Your task to perform on an android device: Search for "logitech g502" on target, select the first entry, add it to the cart, then select checkout. Image 0: 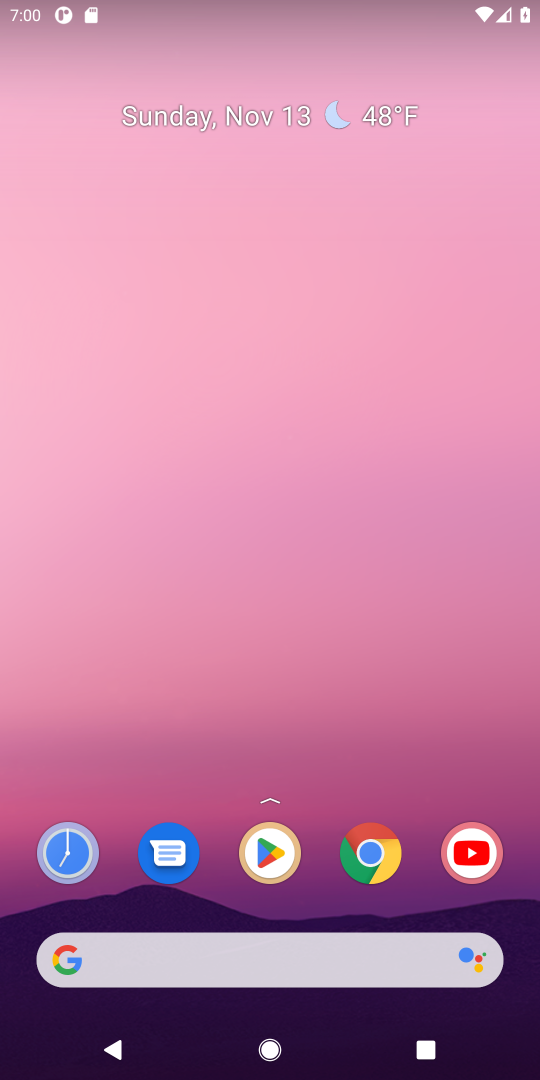
Step 0: press home button
Your task to perform on an android device: Search for "logitech g502" on target, select the first entry, add it to the cart, then select checkout. Image 1: 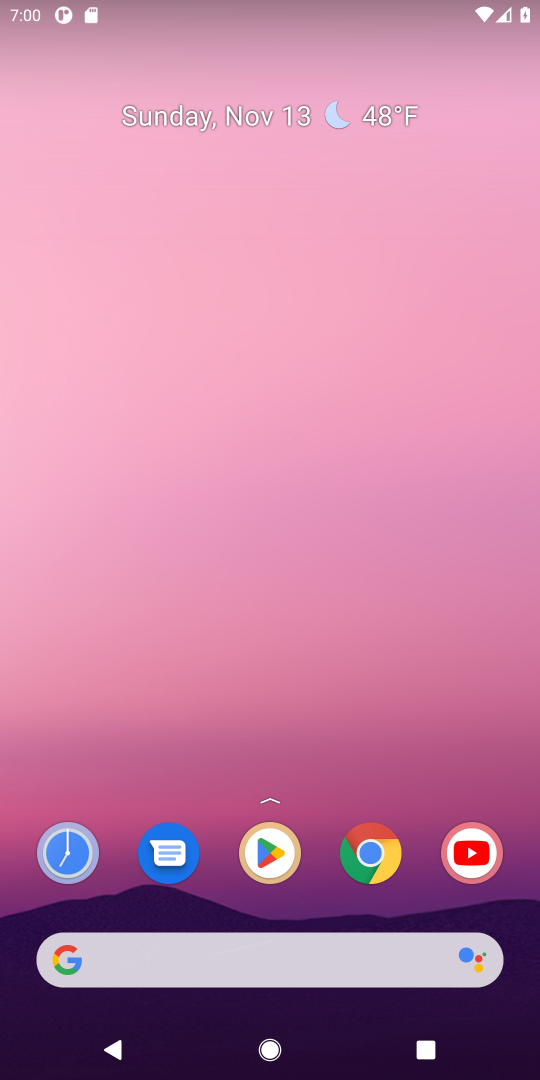
Step 1: click (102, 957)
Your task to perform on an android device: Search for "logitech g502" on target, select the first entry, add it to the cart, then select checkout. Image 2: 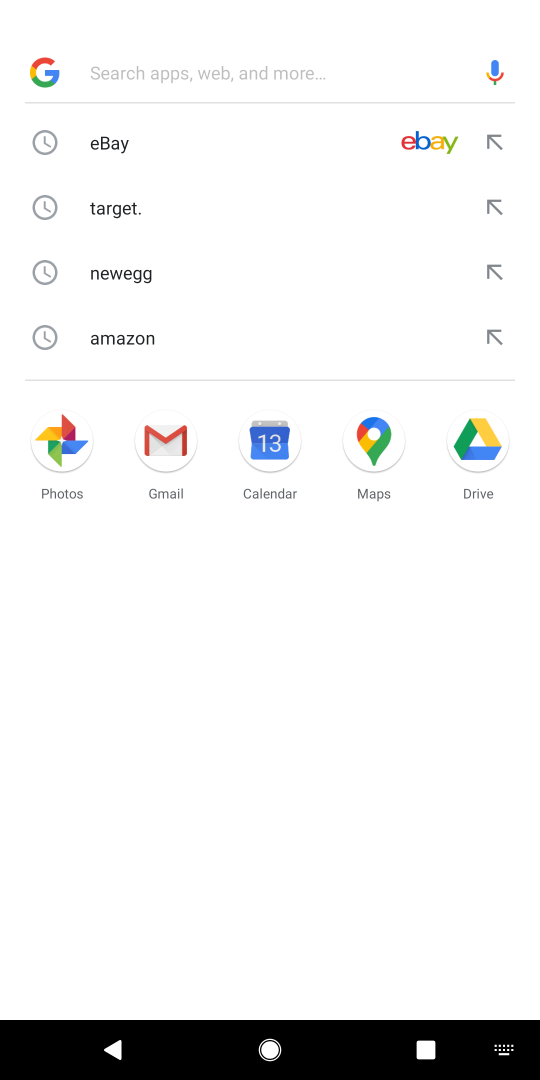
Step 2: type "target"
Your task to perform on an android device: Search for "logitech g502" on target, select the first entry, add it to the cart, then select checkout. Image 3: 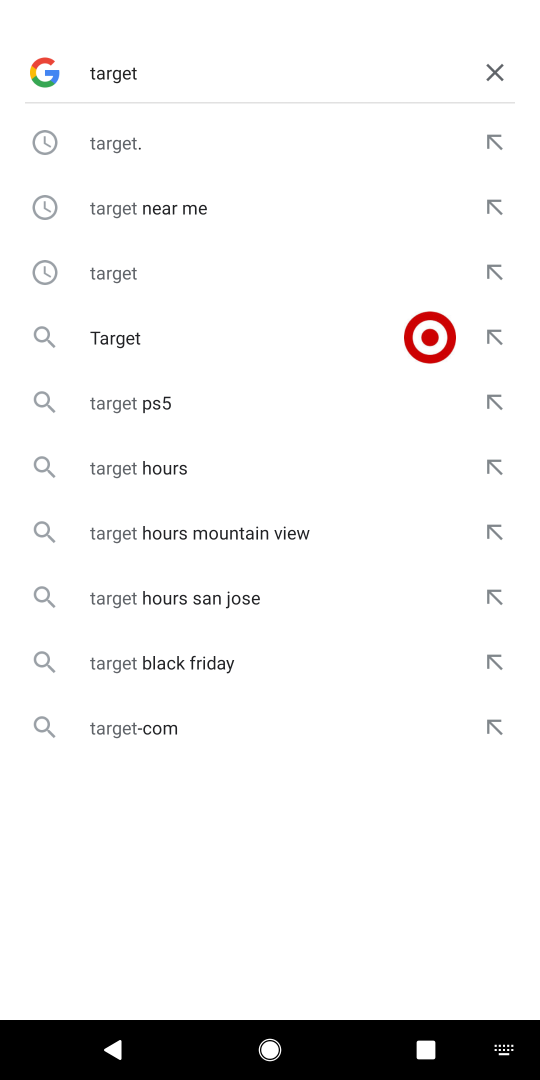
Step 3: press enter
Your task to perform on an android device: Search for "logitech g502" on target, select the first entry, add it to the cart, then select checkout. Image 4: 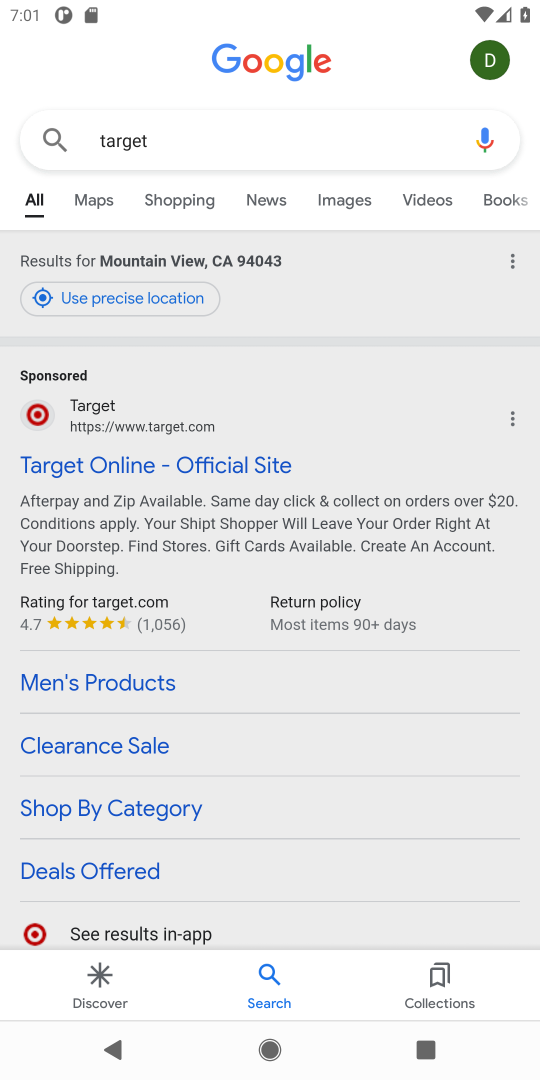
Step 4: click (80, 459)
Your task to perform on an android device: Search for "logitech g502" on target, select the first entry, add it to the cart, then select checkout. Image 5: 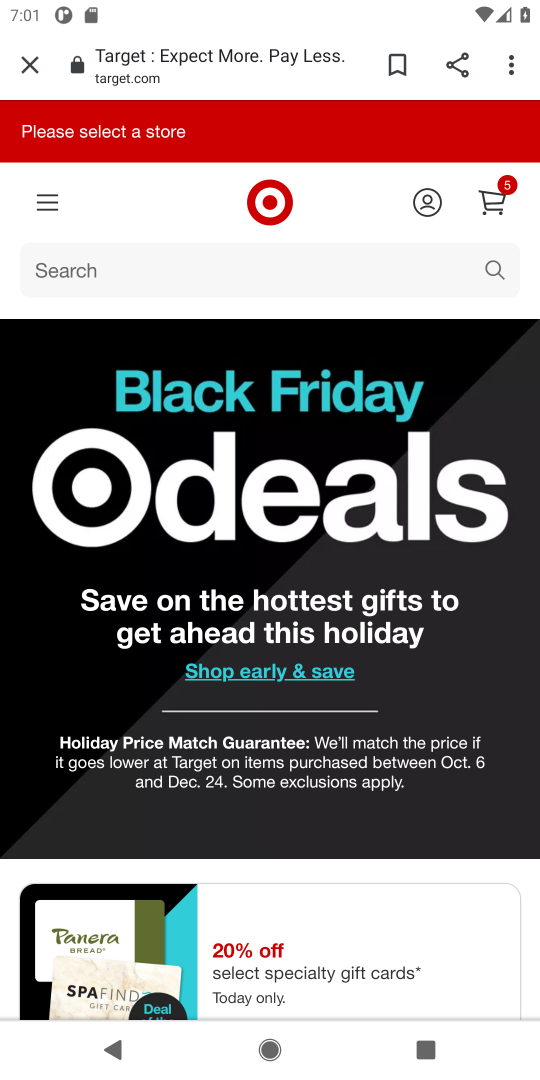
Step 5: click (78, 266)
Your task to perform on an android device: Search for "logitech g502" on target, select the first entry, add it to the cart, then select checkout. Image 6: 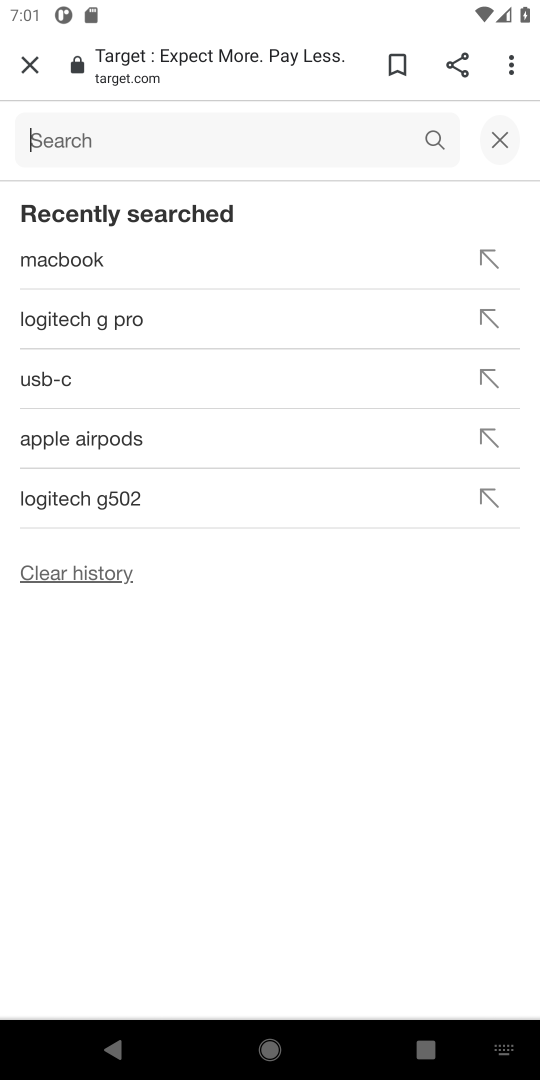
Step 6: type "logitech g502"
Your task to perform on an android device: Search for "logitech g502" on target, select the first entry, add it to the cart, then select checkout. Image 7: 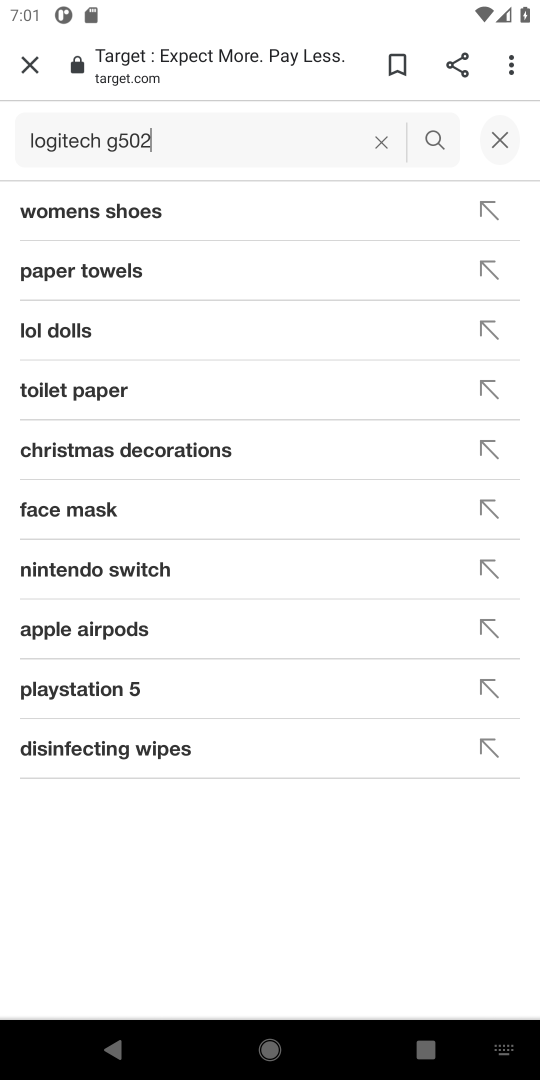
Step 7: press enter
Your task to perform on an android device: Search for "logitech g502" on target, select the first entry, add it to the cart, then select checkout. Image 8: 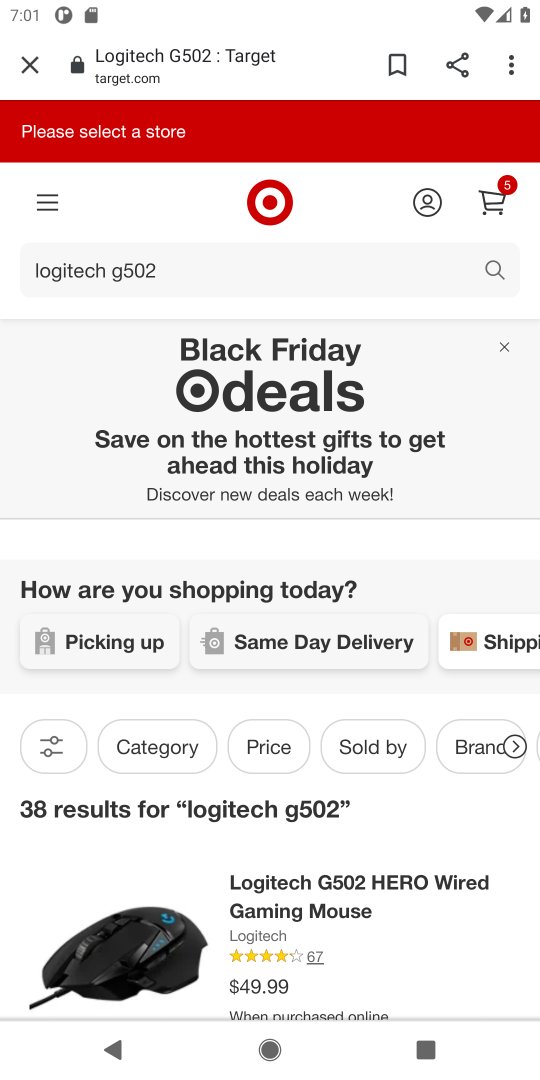
Step 8: click (282, 912)
Your task to perform on an android device: Search for "logitech g502" on target, select the first entry, add it to the cart, then select checkout. Image 9: 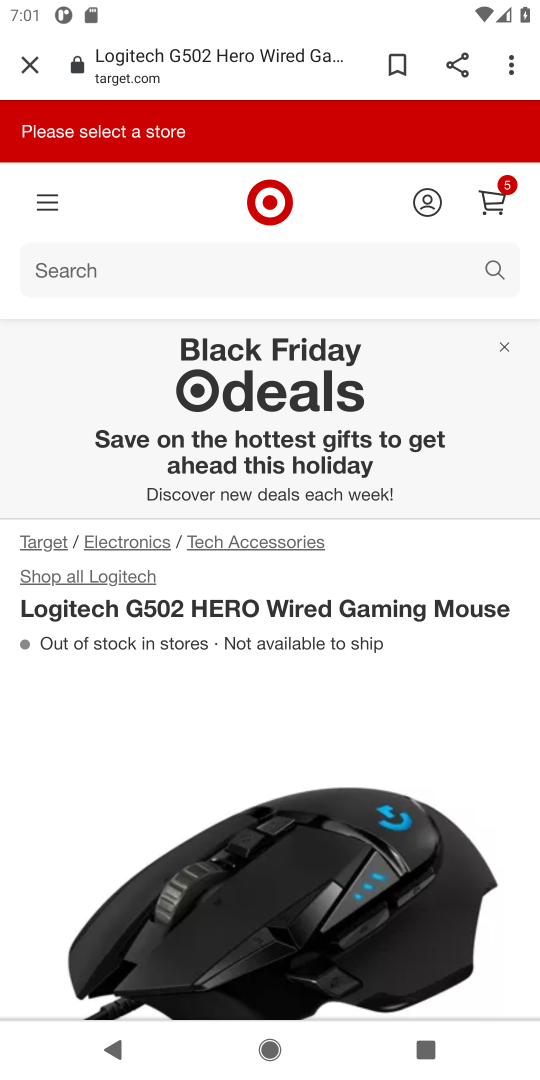
Step 9: drag from (299, 749) to (326, 463)
Your task to perform on an android device: Search for "logitech g502" on target, select the first entry, add it to the cart, then select checkout. Image 10: 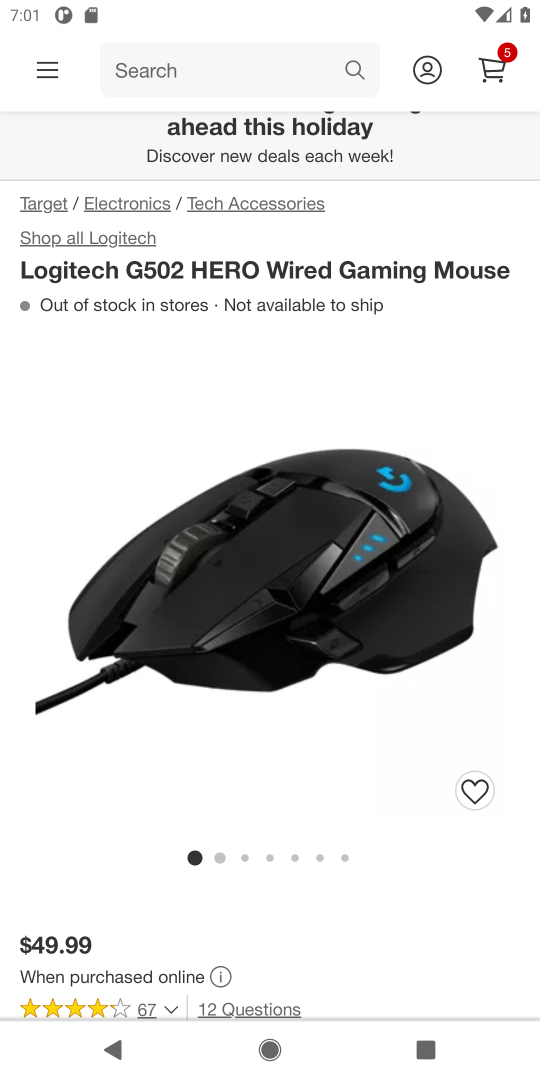
Step 10: drag from (290, 926) to (363, 350)
Your task to perform on an android device: Search for "logitech g502" on target, select the first entry, add it to the cart, then select checkout. Image 11: 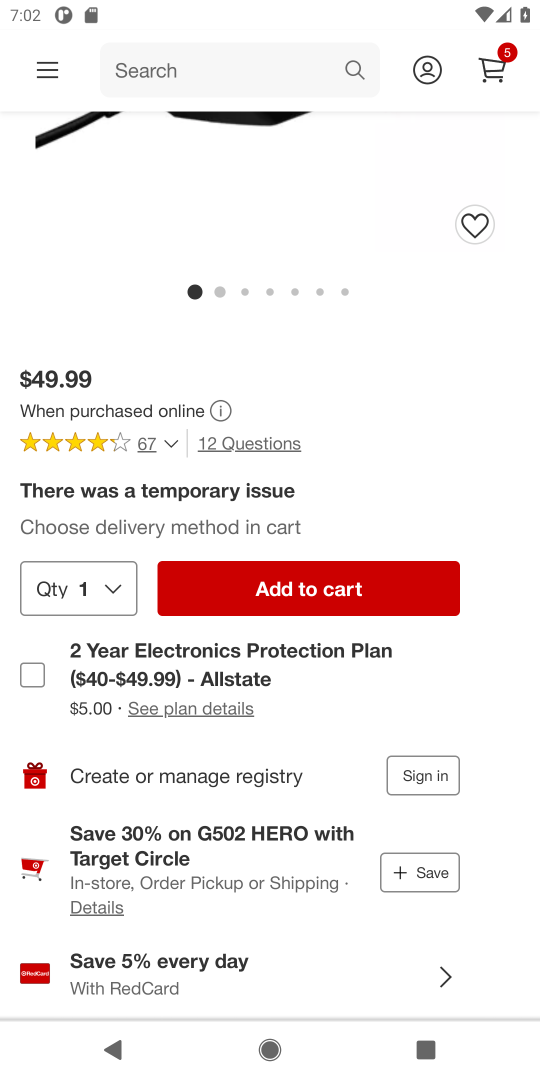
Step 11: click (317, 598)
Your task to perform on an android device: Search for "logitech g502" on target, select the first entry, add it to the cart, then select checkout. Image 12: 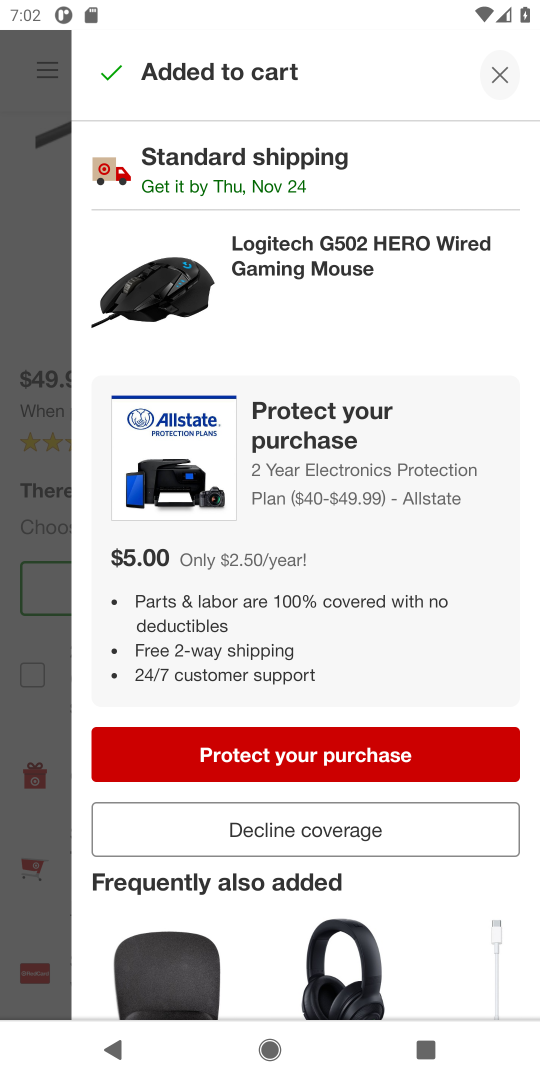
Step 12: click (334, 826)
Your task to perform on an android device: Search for "logitech g502" on target, select the first entry, add it to the cart, then select checkout. Image 13: 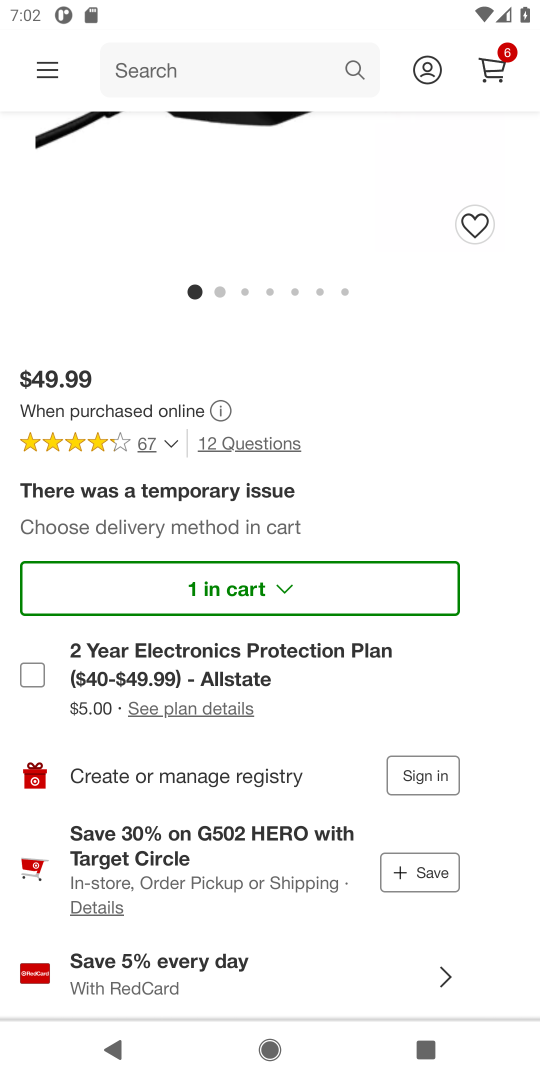
Step 13: click (495, 60)
Your task to perform on an android device: Search for "logitech g502" on target, select the first entry, add it to the cart, then select checkout. Image 14: 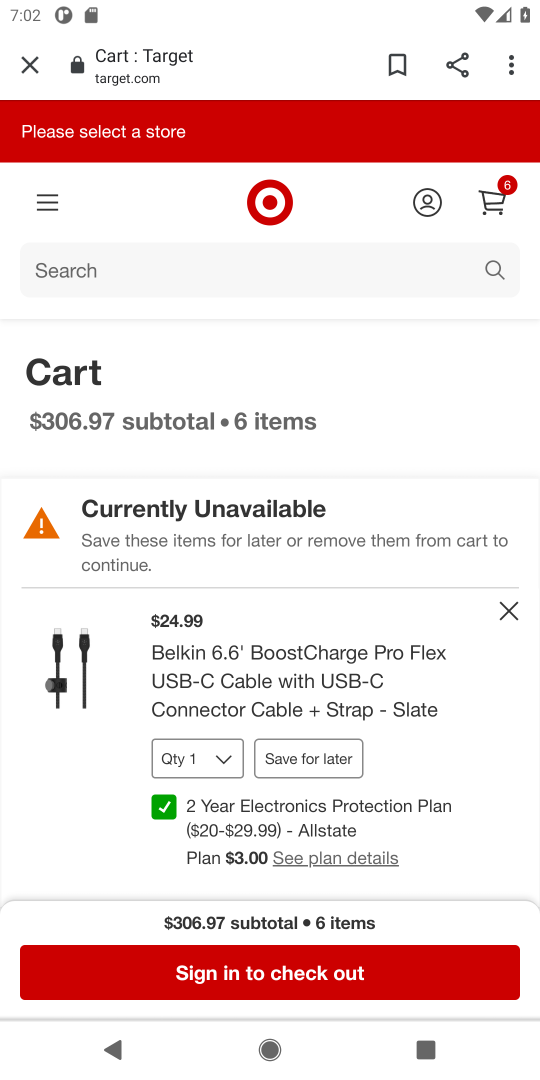
Step 14: click (248, 975)
Your task to perform on an android device: Search for "logitech g502" on target, select the first entry, add it to the cart, then select checkout. Image 15: 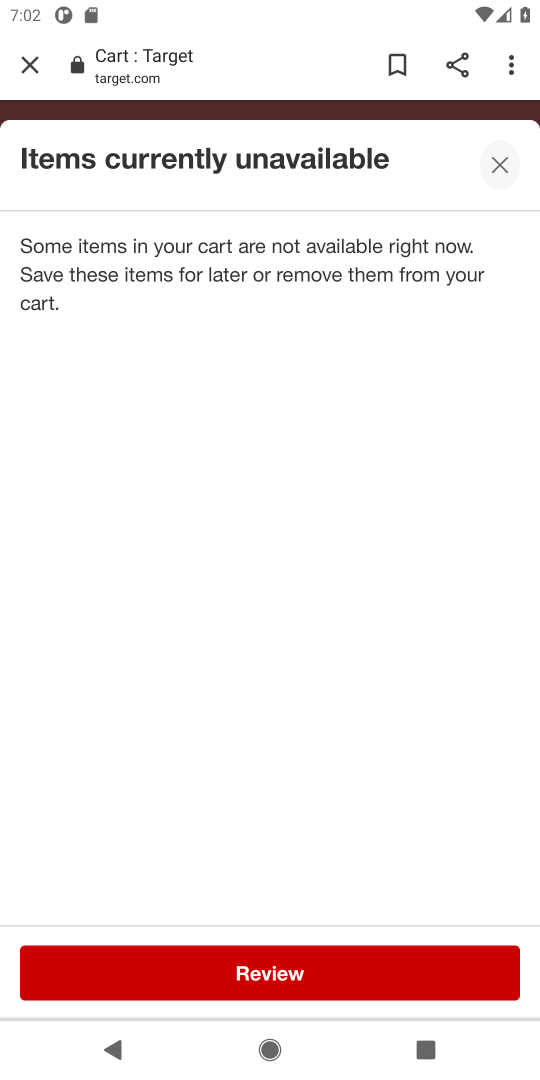
Step 15: task complete